Your task to perform on an android device: Open internet settings Image 0: 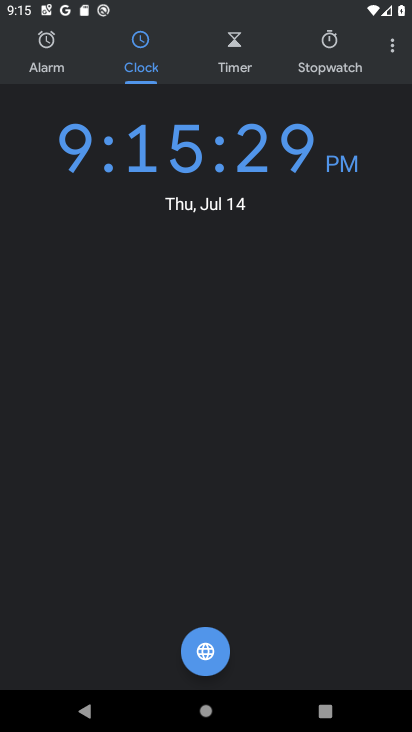
Step 0: press back button
Your task to perform on an android device: Open internet settings Image 1: 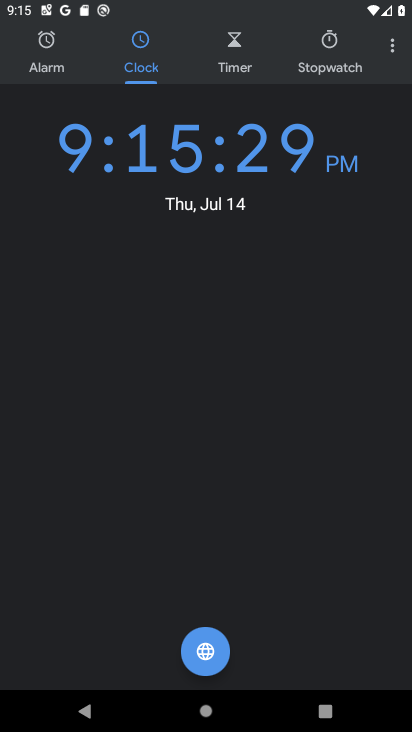
Step 1: press back button
Your task to perform on an android device: Open internet settings Image 2: 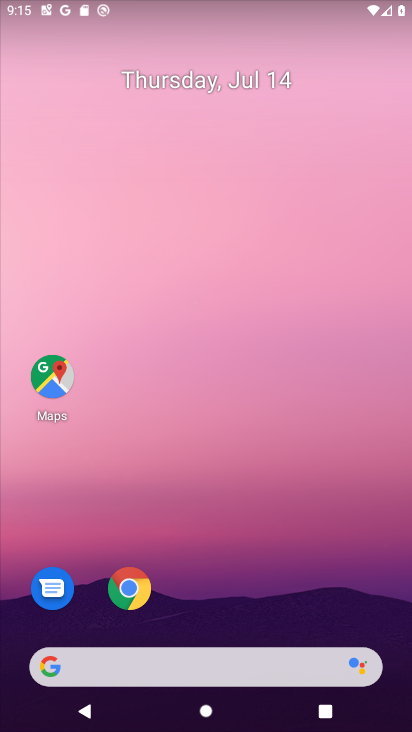
Step 2: drag from (267, 675) to (227, 303)
Your task to perform on an android device: Open internet settings Image 3: 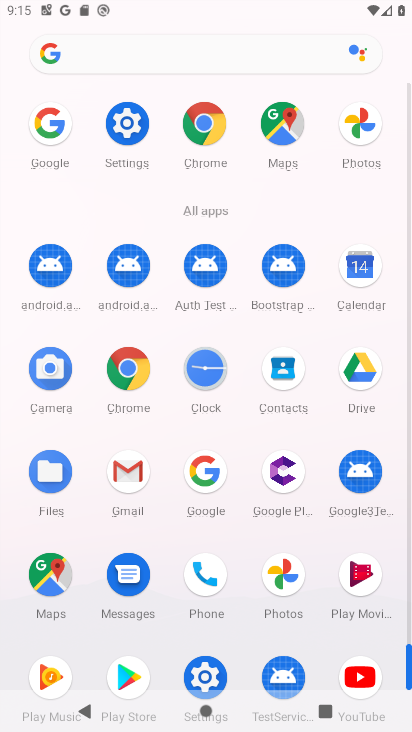
Step 3: click (137, 132)
Your task to perform on an android device: Open internet settings Image 4: 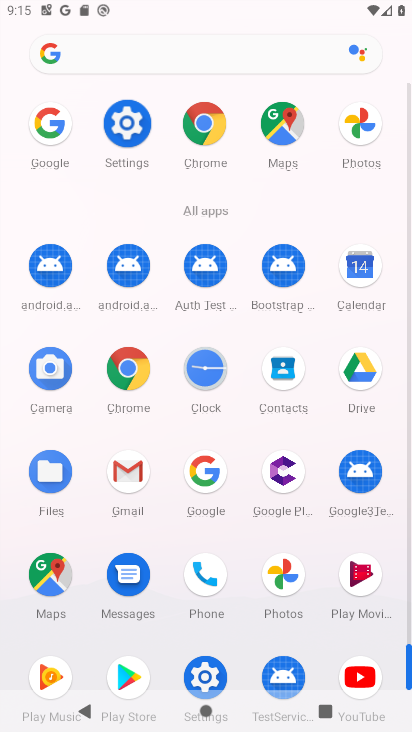
Step 4: click (135, 131)
Your task to perform on an android device: Open internet settings Image 5: 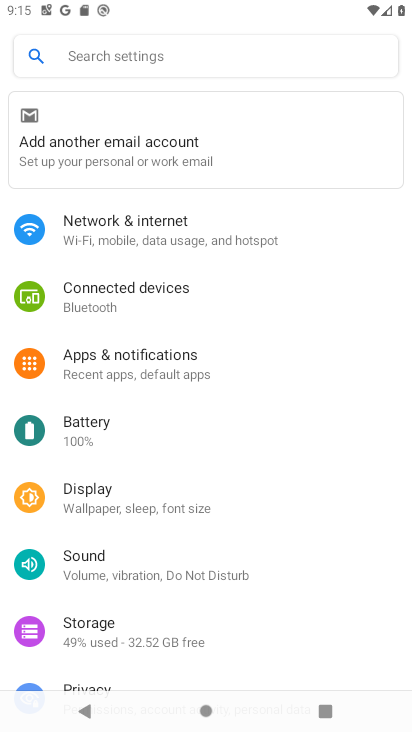
Step 5: click (143, 229)
Your task to perform on an android device: Open internet settings Image 6: 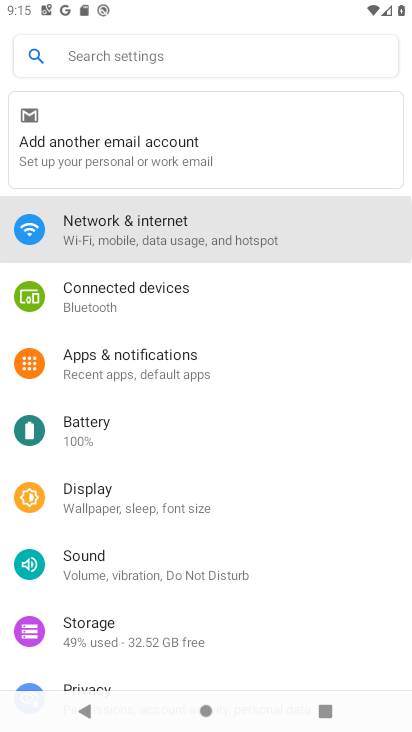
Step 6: click (143, 230)
Your task to perform on an android device: Open internet settings Image 7: 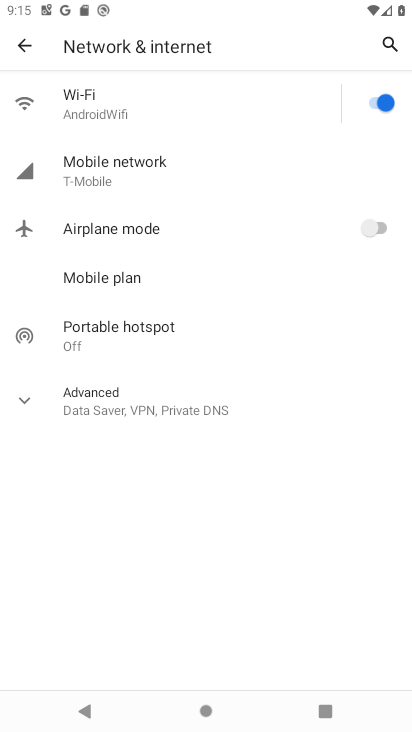
Step 7: click (94, 162)
Your task to perform on an android device: Open internet settings Image 8: 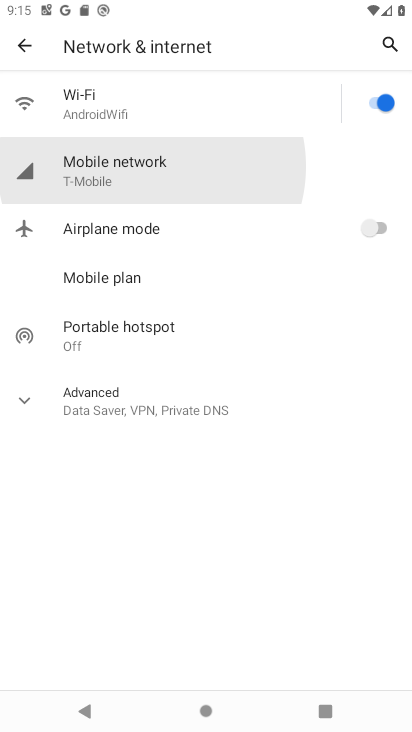
Step 8: click (93, 163)
Your task to perform on an android device: Open internet settings Image 9: 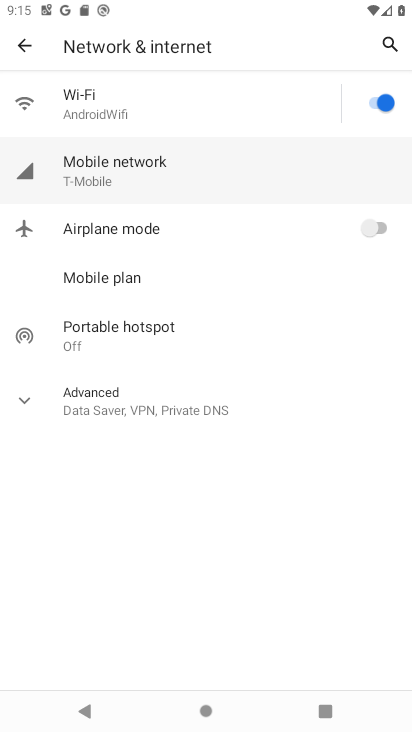
Step 9: click (93, 163)
Your task to perform on an android device: Open internet settings Image 10: 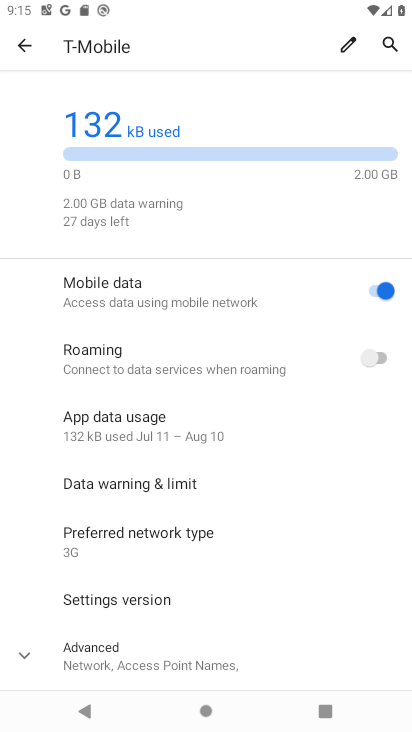
Step 10: task complete